Your task to perform on an android device: open app "Cash App" (install if not already installed) and enter user name: "submodules@gmail.com" and password: "heavenly" Image 0: 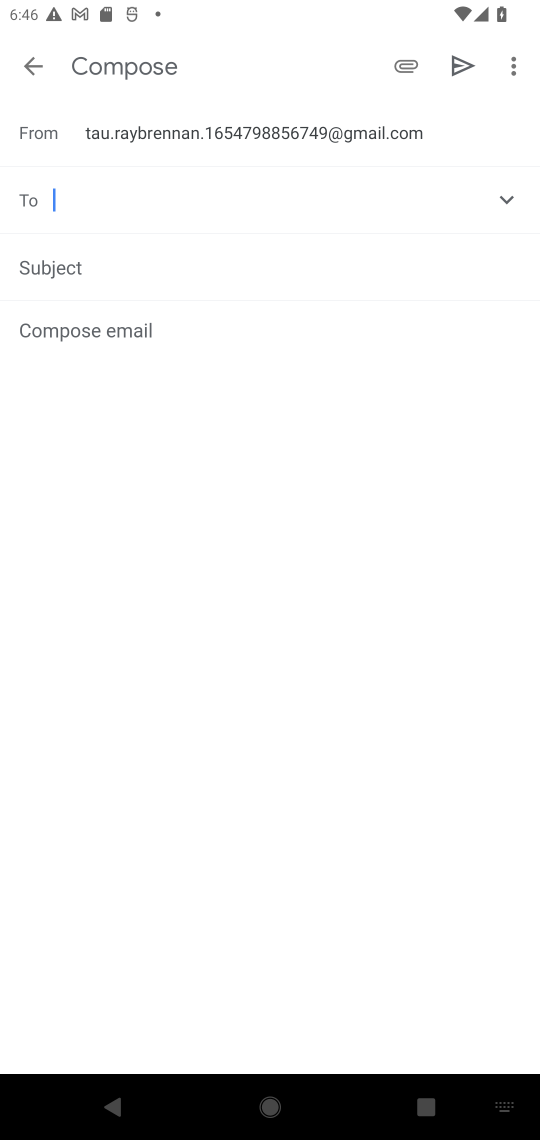
Step 0: press home button
Your task to perform on an android device: open app "Cash App" (install if not already installed) and enter user name: "submodules@gmail.com" and password: "heavenly" Image 1: 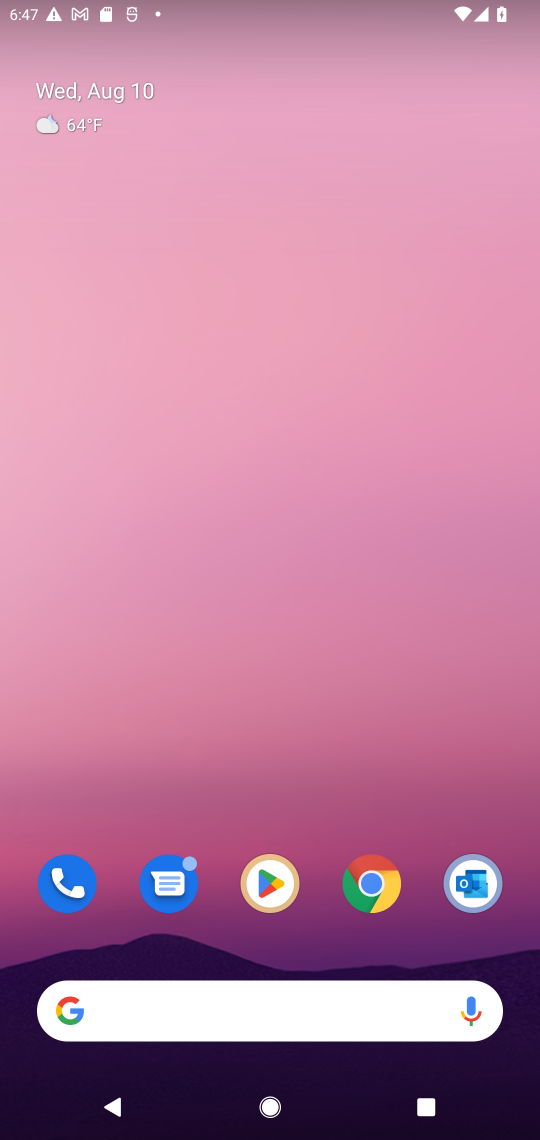
Step 1: click (266, 882)
Your task to perform on an android device: open app "Cash App" (install if not already installed) and enter user name: "submodules@gmail.com" and password: "heavenly" Image 2: 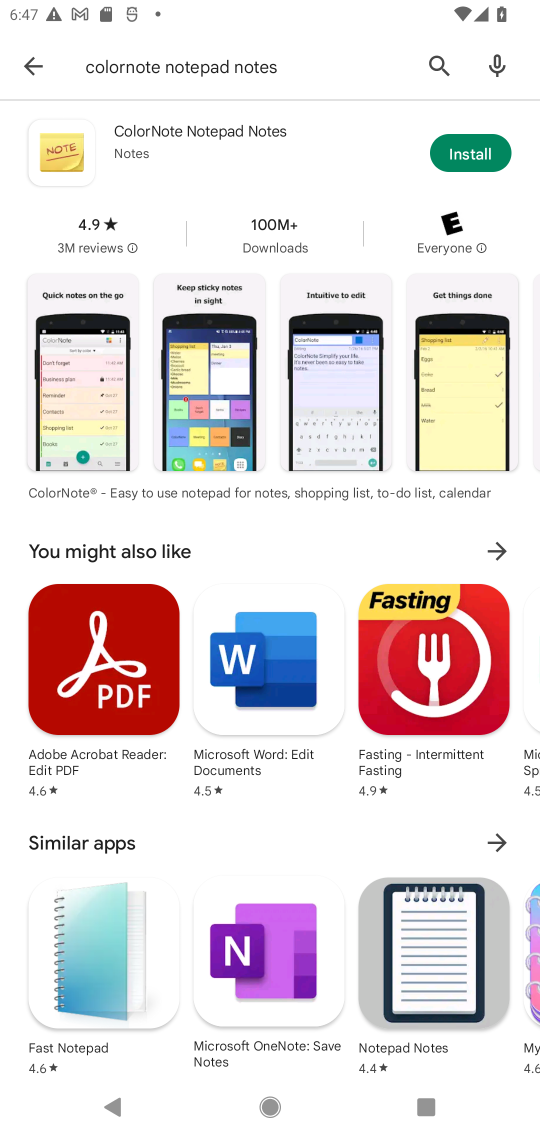
Step 2: click (426, 61)
Your task to perform on an android device: open app "Cash App" (install if not already installed) and enter user name: "submodules@gmail.com" and password: "heavenly" Image 3: 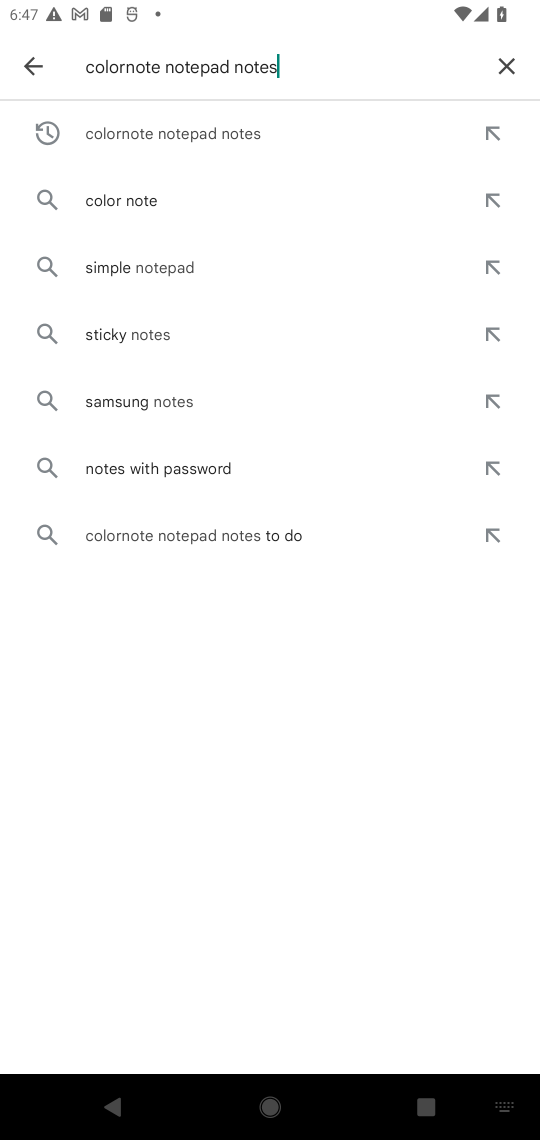
Step 3: click (503, 76)
Your task to perform on an android device: open app "Cash App" (install if not already installed) and enter user name: "submodules@gmail.com" and password: "heavenly" Image 4: 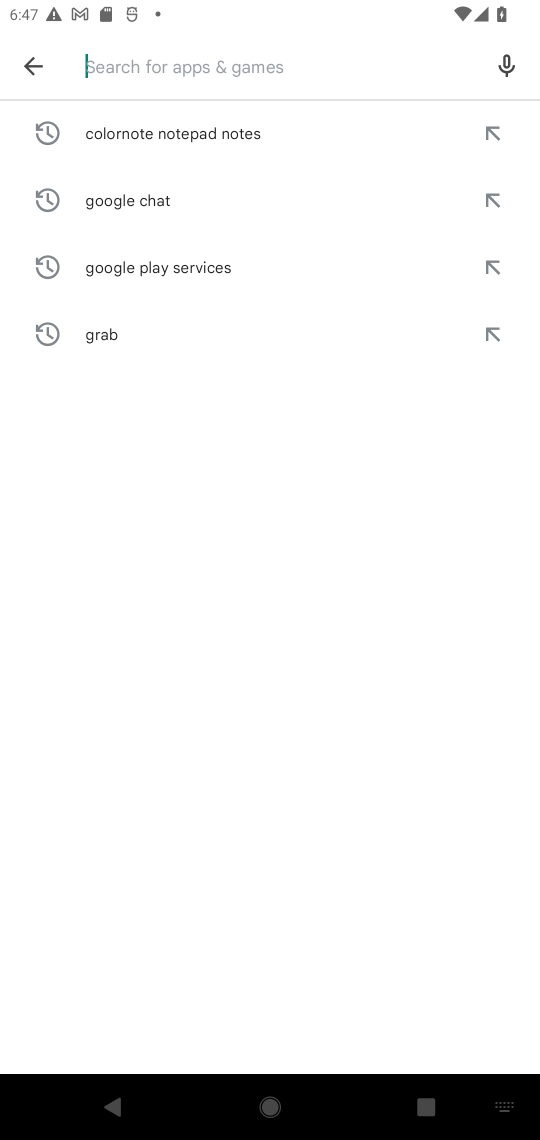
Step 4: type "Cash App"
Your task to perform on an android device: open app "Cash App" (install if not already installed) and enter user name: "submodules@gmail.com" and password: "heavenly" Image 5: 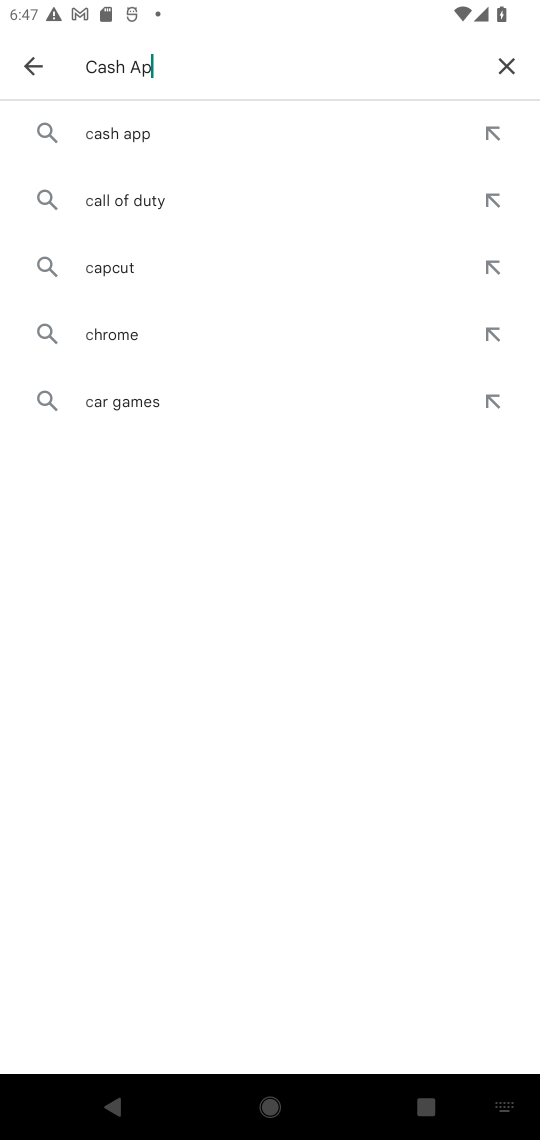
Step 5: type ""
Your task to perform on an android device: open app "Cash App" (install if not already installed) and enter user name: "submodules@gmail.com" and password: "heavenly" Image 6: 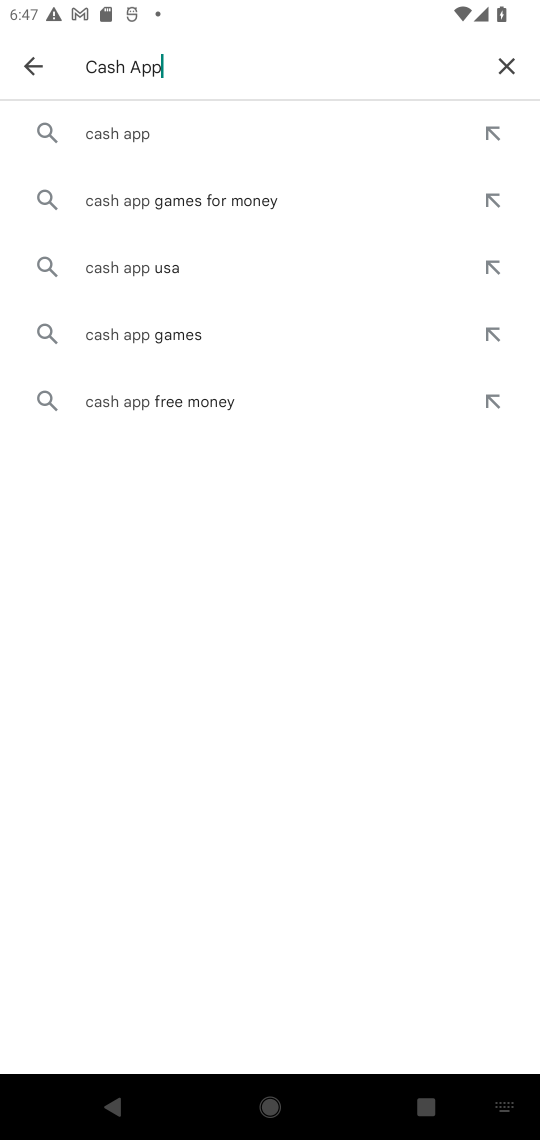
Step 6: click (182, 131)
Your task to perform on an android device: open app "Cash App" (install if not already installed) and enter user name: "submodules@gmail.com" and password: "heavenly" Image 7: 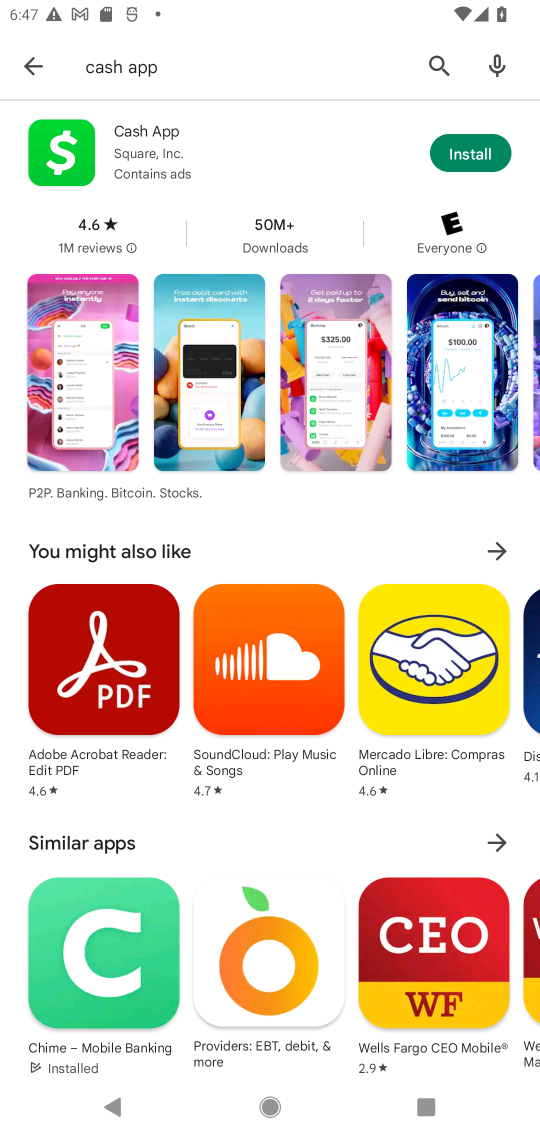
Step 7: click (469, 159)
Your task to perform on an android device: open app "Cash App" (install if not already installed) and enter user name: "submodules@gmail.com" and password: "heavenly" Image 8: 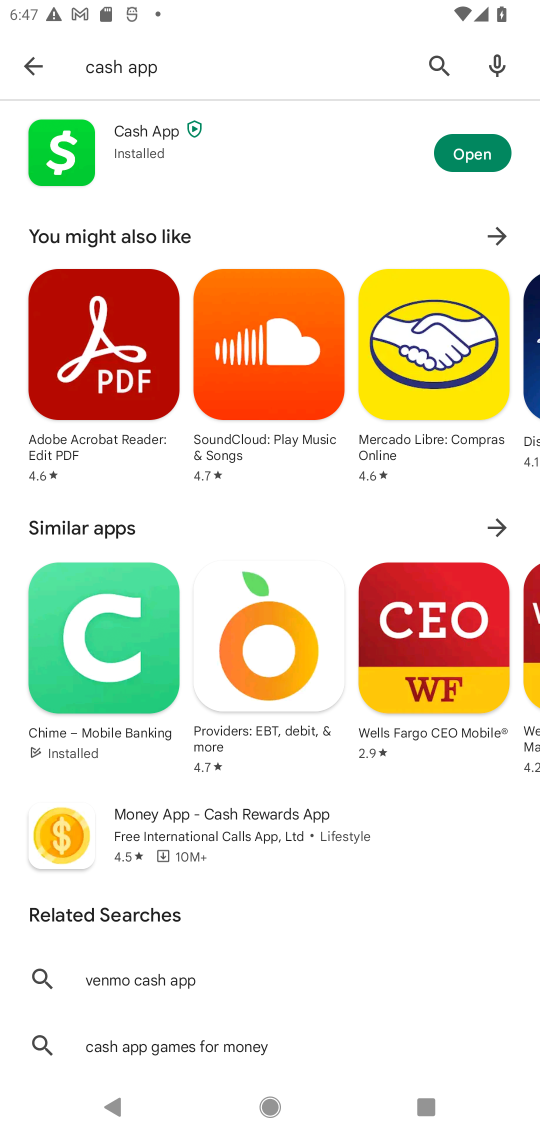
Step 8: click (456, 152)
Your task to perform on an android device: open app "Cash App" (install if not already installed) and enter user name: "submodules@gmail.com" and password: "heavenly" Image 9: 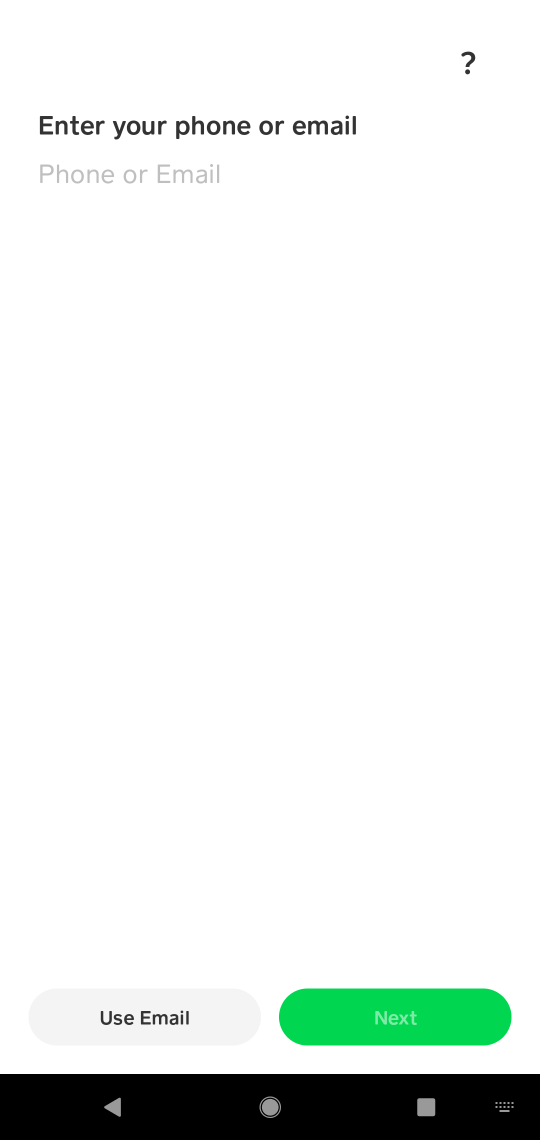
Step 9: task complete